Your task to perform on an android device: turn off wifi Image 0: 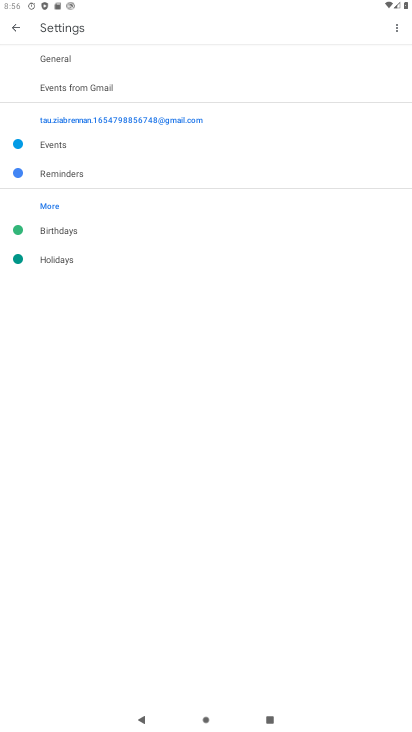
Step 0: press home button
Your task to perform on an android device: turn off wifi Image 1: 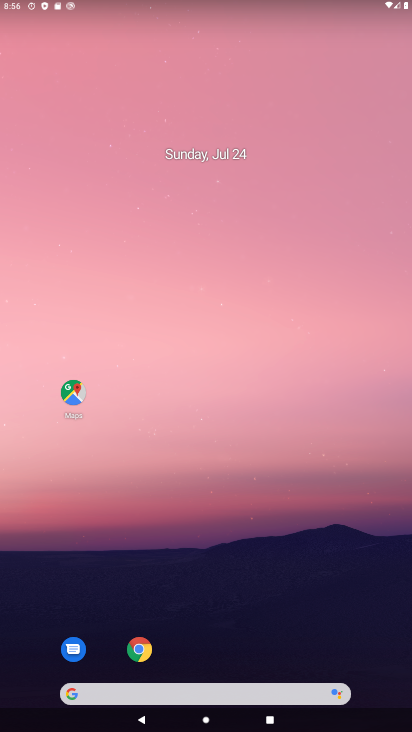
Step 1: drag from (62, 664) to (175, 125)
Your task to perform on an android device: turn off wifi Image 2: 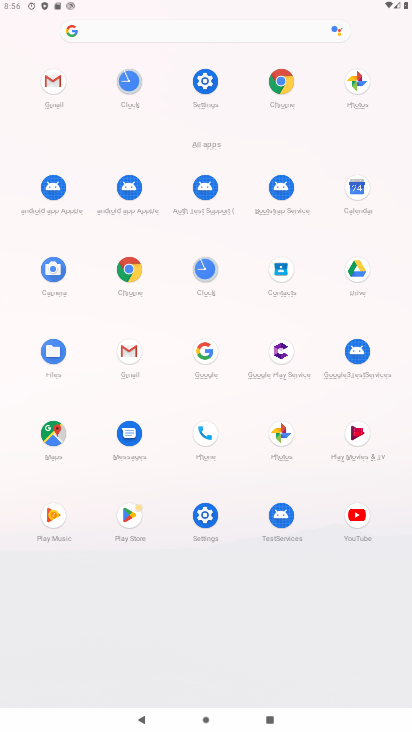
Step 2: click (205, 520)
Your task to perform on an android device: turn off wifi Image 3: 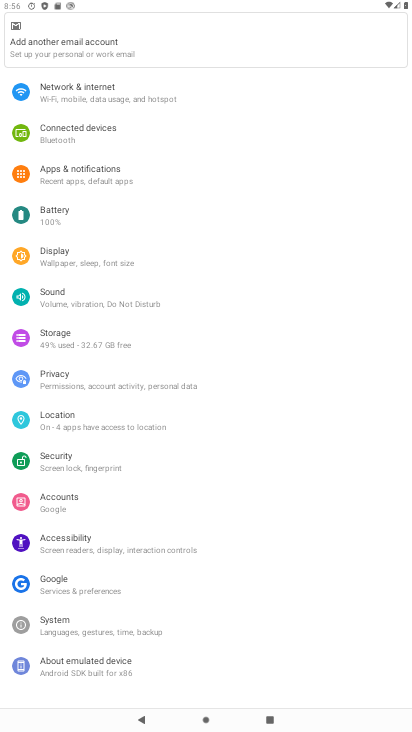
Step 3: click (82, 95)
Your task to perform on an android device: turn off wifi Image 4: 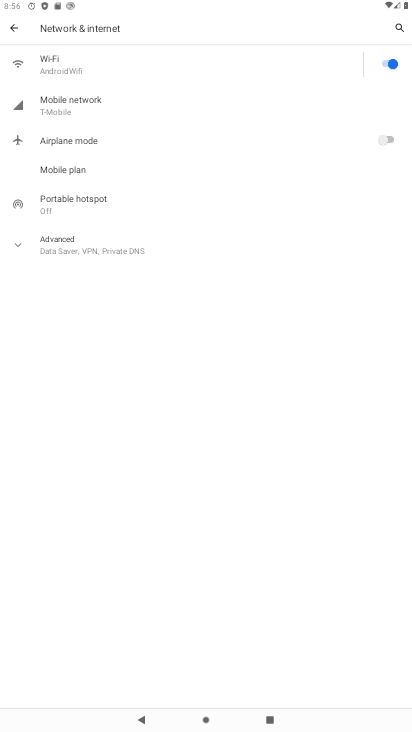
Step 4: click (388, 61)
Your task to perform on an android device: turn off wifi Image 5: 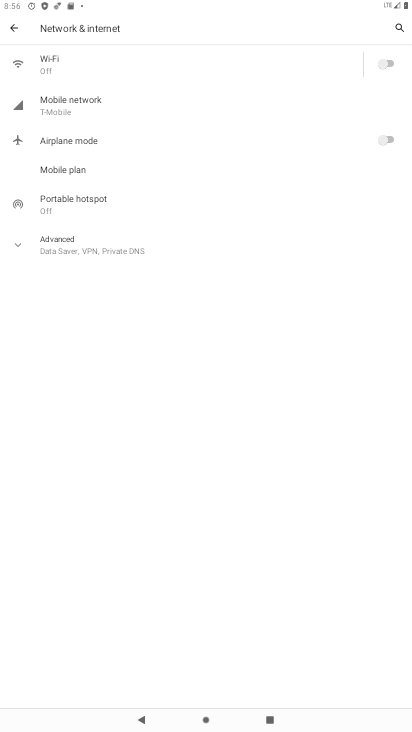
Step 5: task complete